Your task to perform on an android device: Open the stopwatch Image 0: 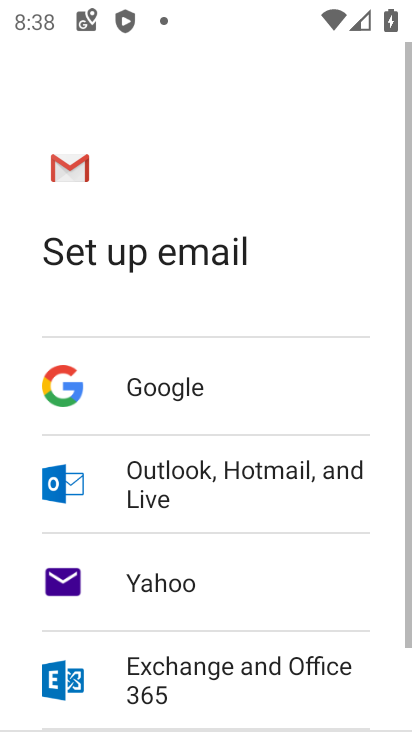
Step 0: press home button
Your task to perform on an android device: Open the stopwatch Image 1: 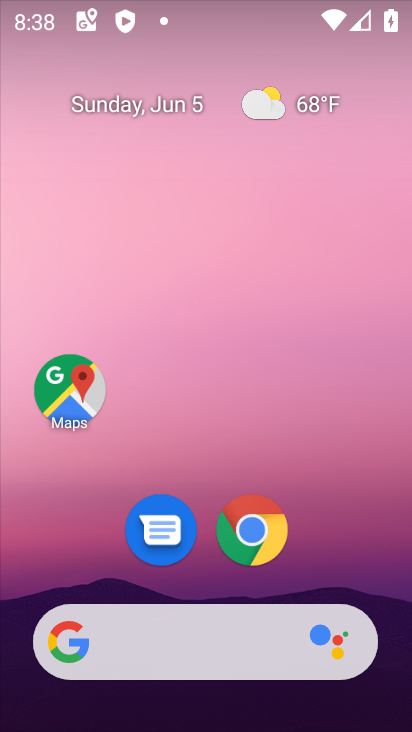
Step 1: drag from (411, 639) to (353, 67)
Your task to perform on an android device: Open the stopwatch Image 2: 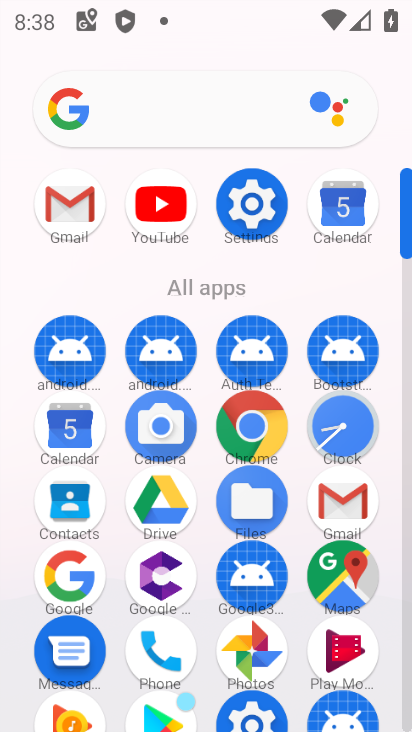
Step 2: click (405, 695)
Your task to perform on an android device: Open the stopwatch Image 3: 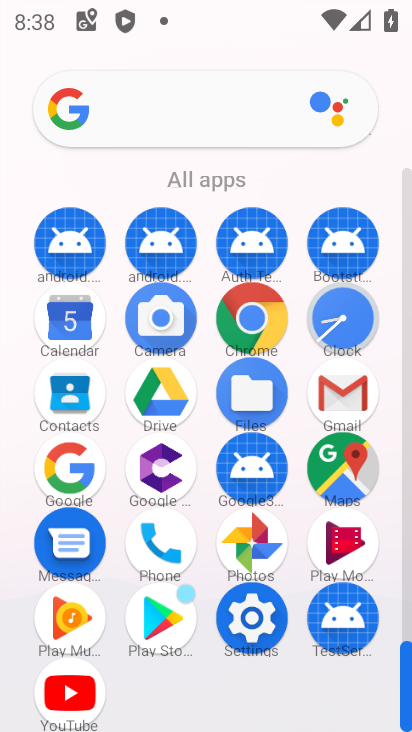
Step 3: click (343, 316)
Your task to perform on an android device: Open the stopwatch Image 4: 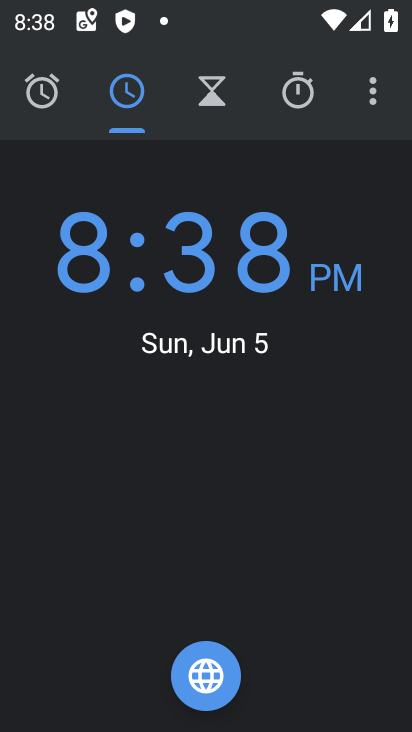
Step 4: click (301, 102)
Your task to perform on an android device: Open the stopwatch Image 5: 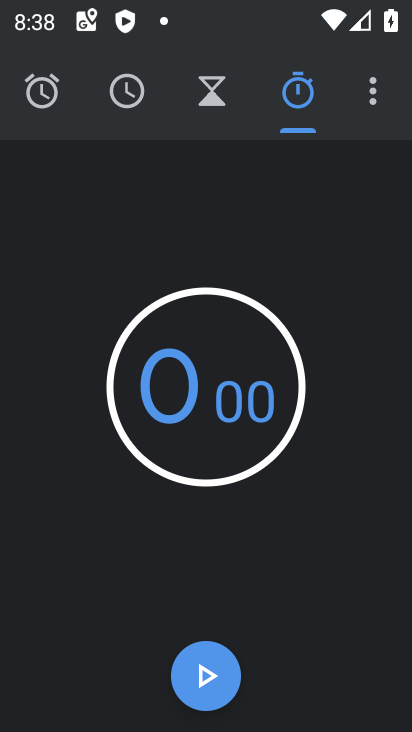
Step 5: task complete